Your task to perform on an android device: Play the last video I watched on Youtube Image 0: 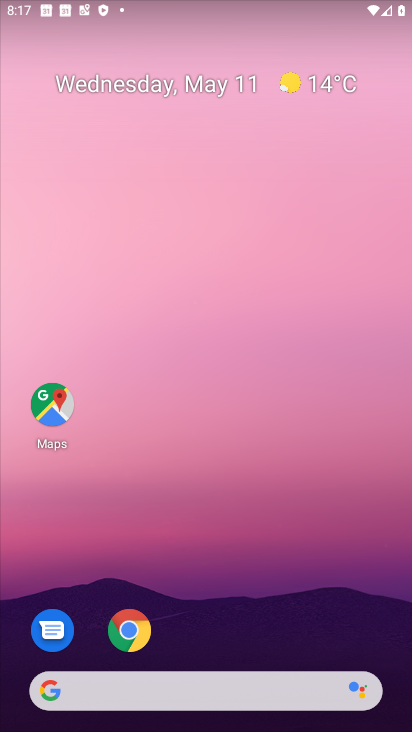
Step 0: drag from (231, 659) to (275, 1)
Your task to perform on an android device: Play the last video I watched on Youtube Image 1: 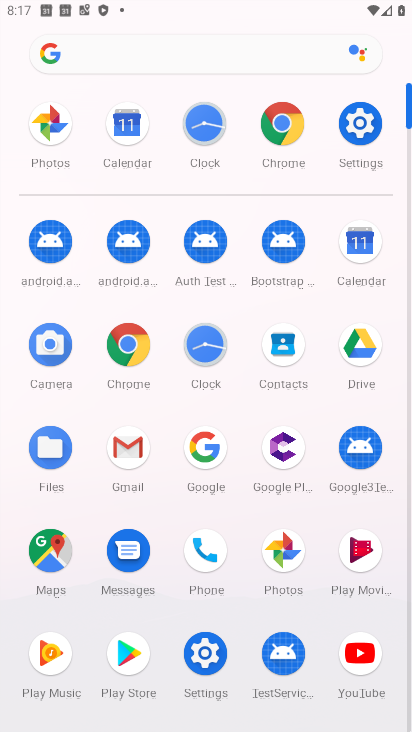
Step 1: click (361, 666)
Your task to perform on an android device: Play the last video I watched on Youtube Image 2: 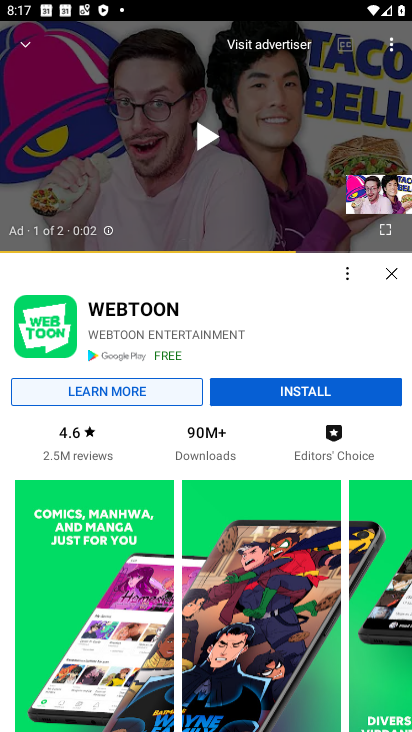
Step 2: click (22, 41)
Your task to perform on an android device: Play the last video I watched on Youtube Image 3: 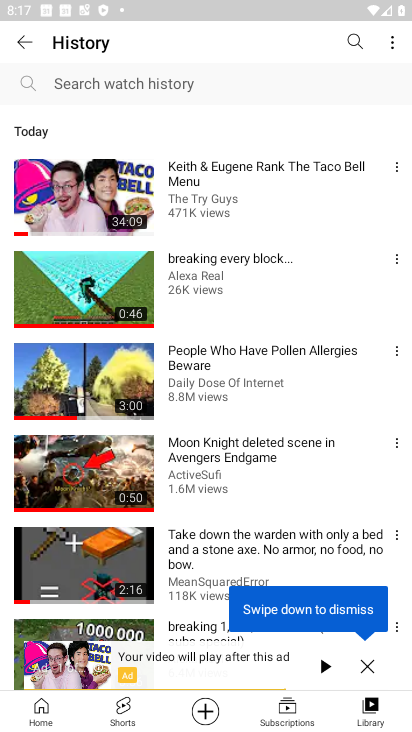
Step 3: click (145, 185)
Your task to perform on an android device: Play the last video I watched on Youtube Image 4: 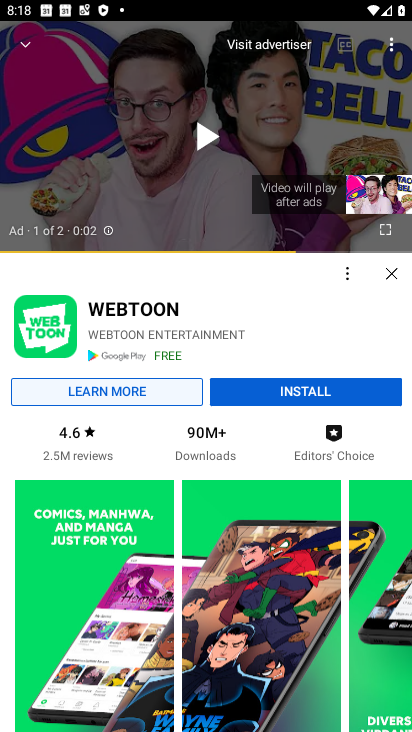
Step 4: click (196, 133)
Your task to perform on an android device: Play the last video I watched on Youtube Image 5: 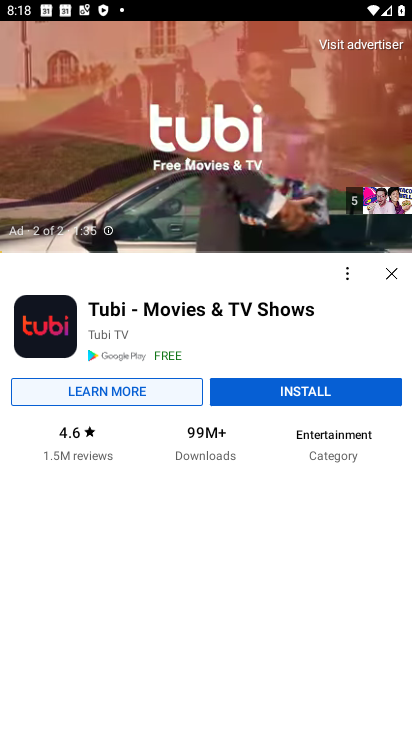
Step 5: click (193, 130)
Your task to perform on an android device: Play the last video I watched on Youtube Image 6: 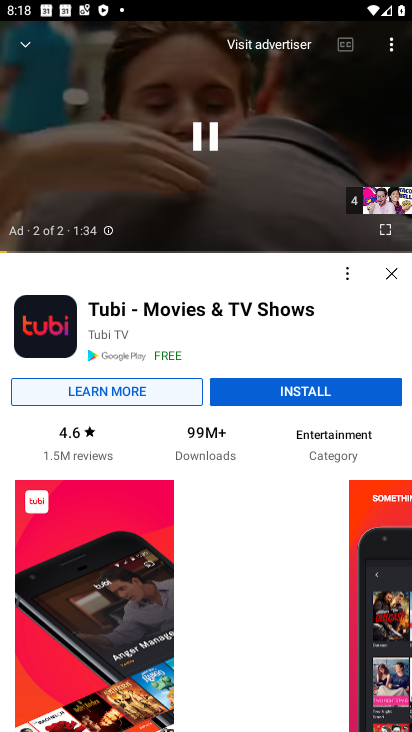
Step 6: click (193, 130)
Your task to perform on an android device: Play the last video I watched on Youtube Image 7: 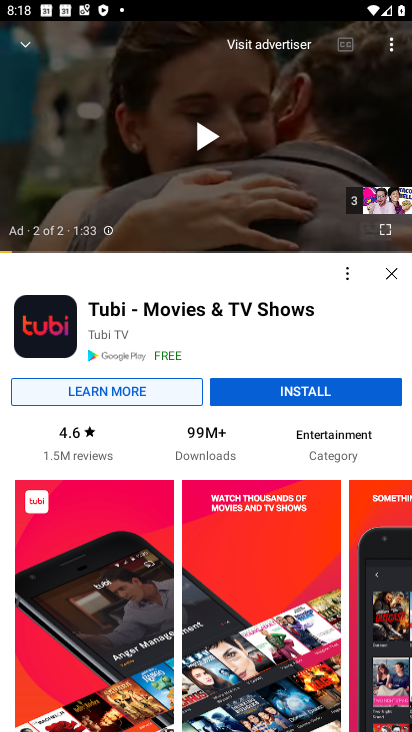
Step 7: task complete